Your task to perform on an android device: Turn on the flashlight Image 0: 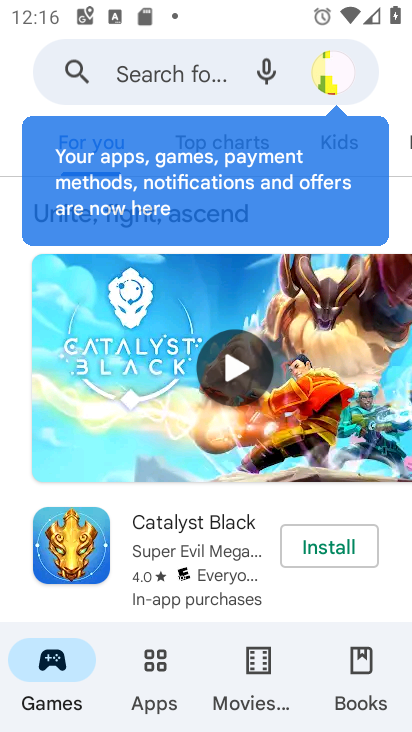
Step 0: drag from (207, 675) to (188, 7)
Your task to perform on an android device: Turn on the flashlight Image 1: 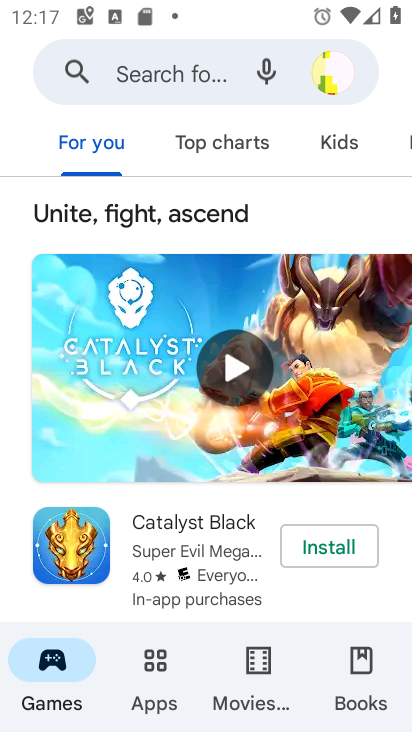
Step 1: task complete